Your task to perform on an android device: turn off improve location accuracy Image 0: 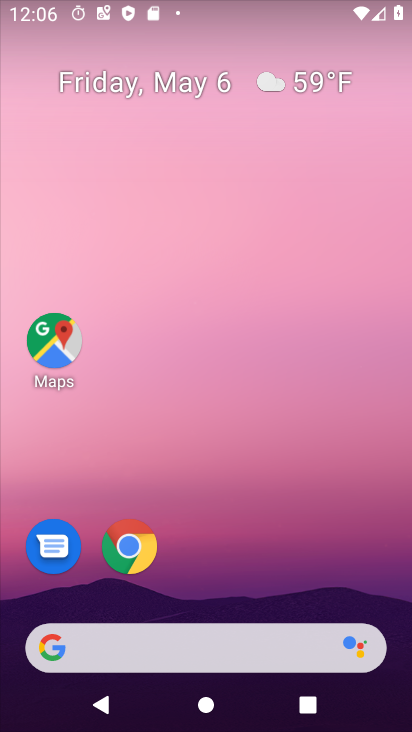
Step 0: drag from (226, 566) to (274, 196)
Your task to perform on an android device: turn off improve location accuracy Image 1: 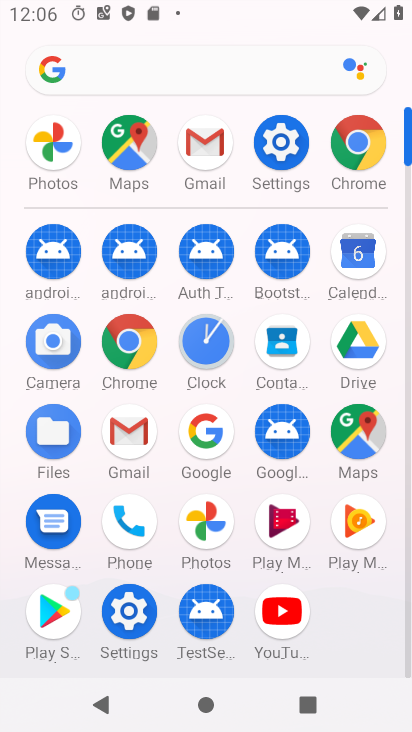
Step 1: click (128, 148)
Your task to perform on an android device: turn off improve location accuracy Image 2: 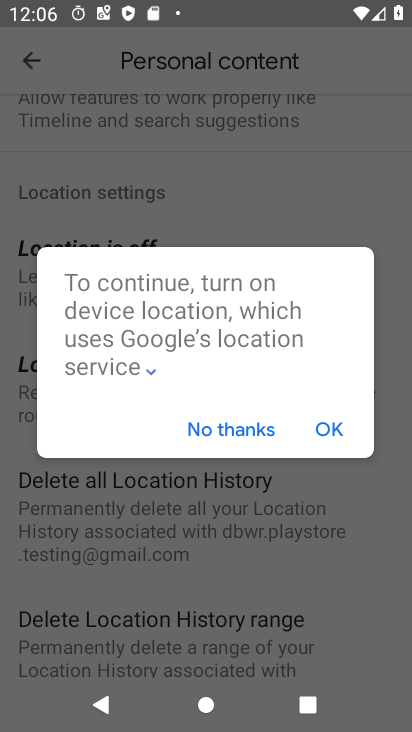
Step 2: click (235, 430)
Your task to perform on an android device: turn off improve location accuracy Image 3: 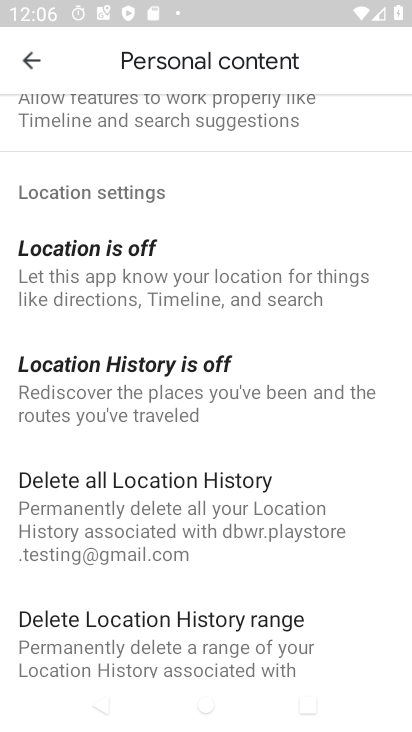
Step 3: drag from (214, 259) to (187, 544)
Your task to perform on an android device: turn off improve location accuracy Image 4: 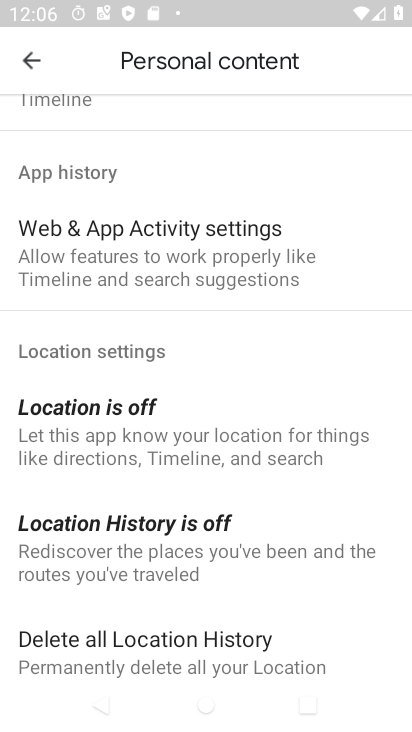
Step 4: click (33, 56)
Your task to perform on an android device: turn off improve location accuracy Image 5: 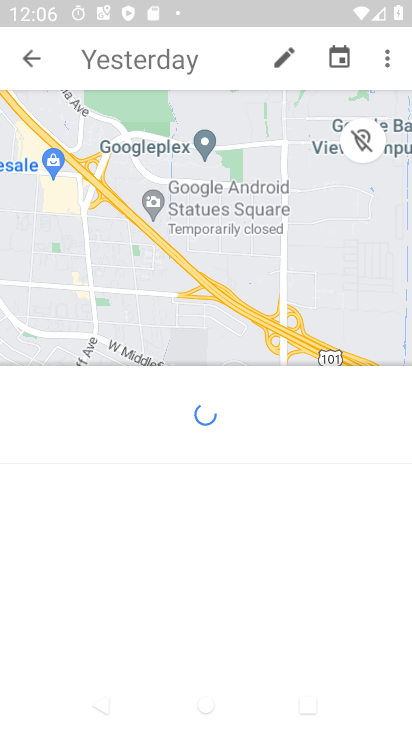
Step 5: click (32, 55)
Your task to perform on an android device: turn off improve location accuracy Image 6: 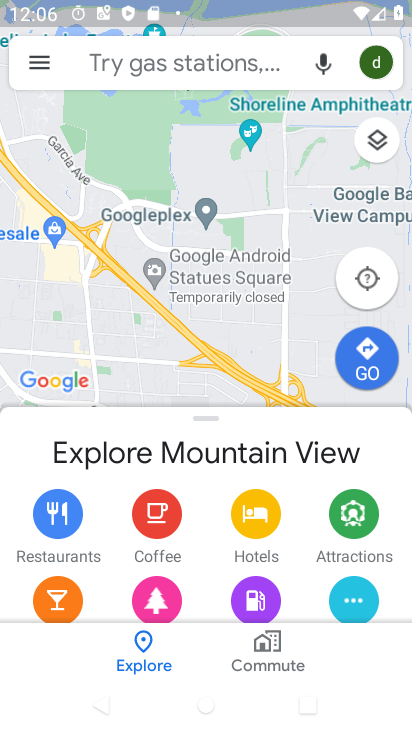
Step 6: press home button
Your task to perform on an android device: turn off improve location accuracy Image 7: 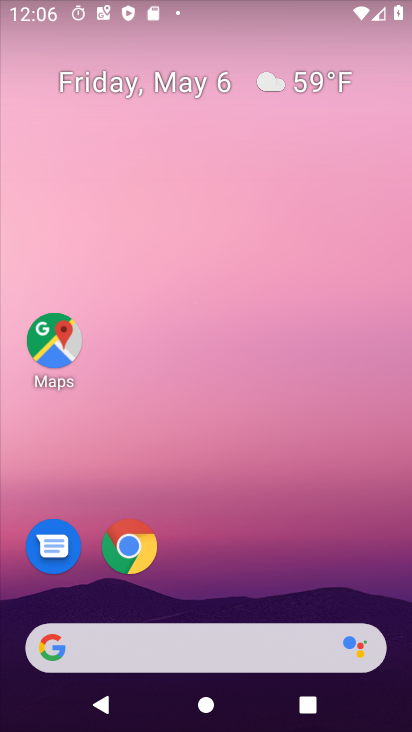
Step 7: drag from (248, 566) to (292, 57)
Your task to perform on an android device: turn off improve location accuracy Image 8: 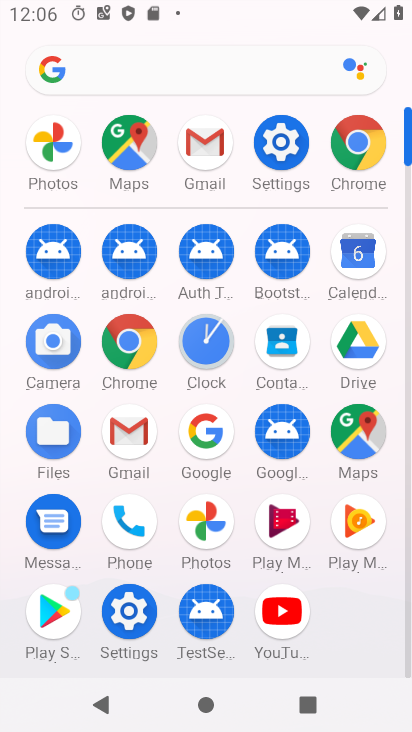
Step 8: click (282, 130)
Your task to perform on an android device: turn off improve location accuracy Image 9: 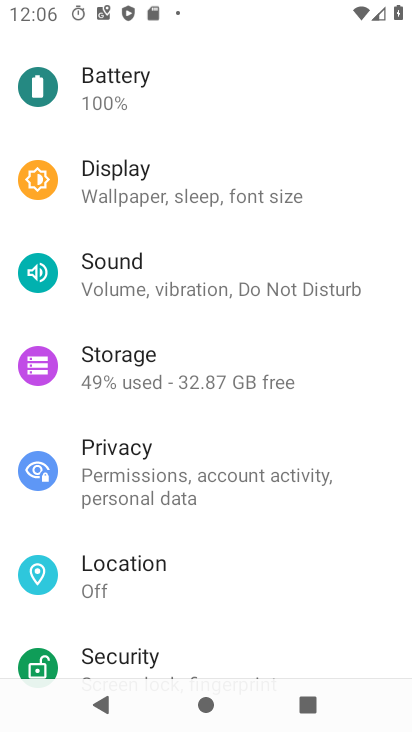
Step 9: click (198, 590)
Your task to perform on an android device: turn off improve location accuracy Image 10: 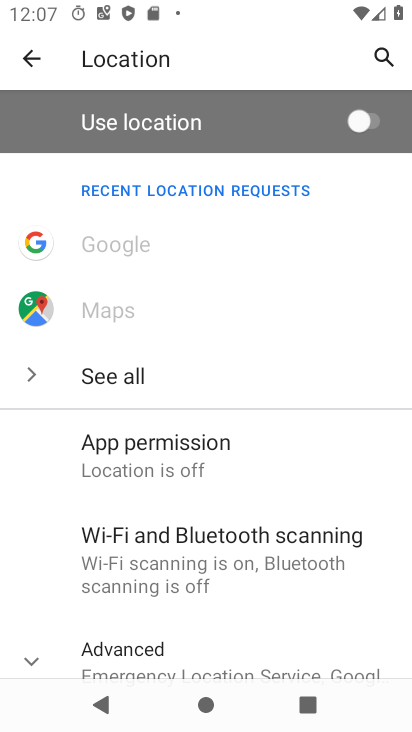
Step 10: drag from (320, 564) to (325, 380)
Your task to perform on an android device: turn off improve location accuracy Image 11: 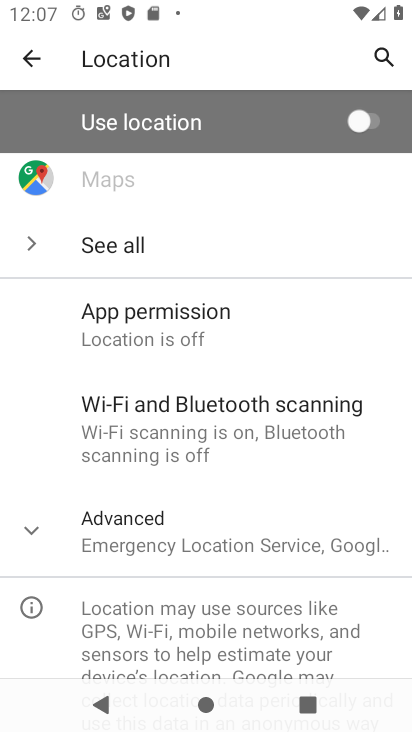
Step 11: click (226, 519)
Your task to perform on an android device: turn off improve location accuracy Image 12: 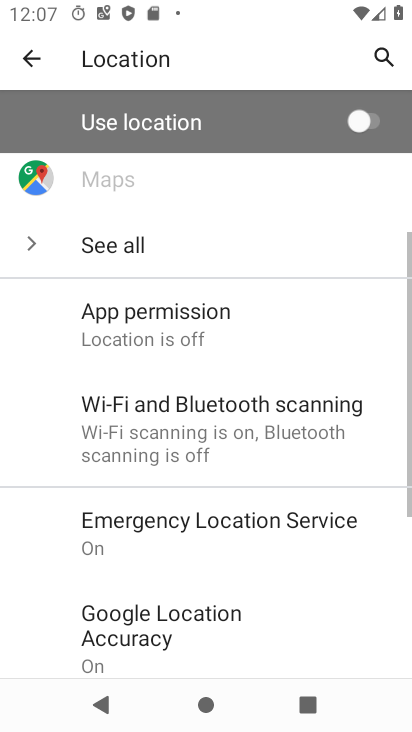
Step 12: drag from (276, 583) to (282, 315)
Your task to perform on an android device: turn off improve location accuracy Image 13: 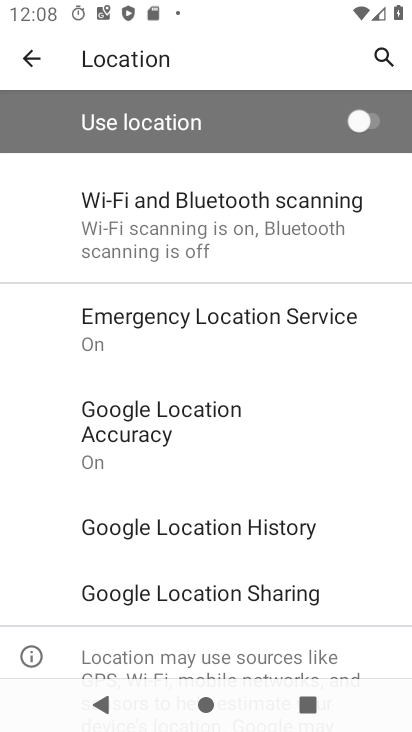
Step 13: click (208, 424)
Your task to perform on an android device: turn off improve location accuracy Image 14: 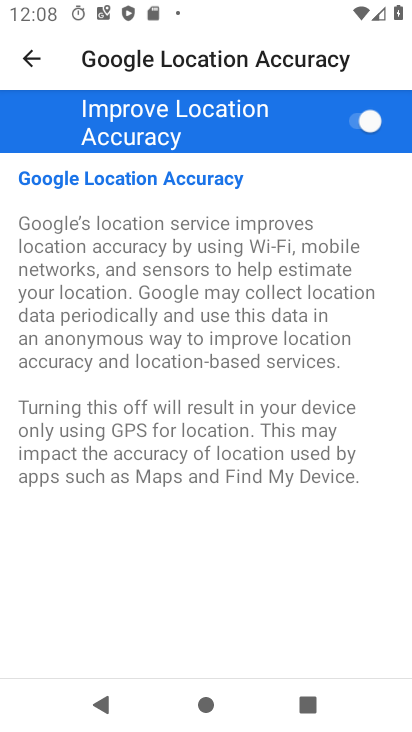
Step 14: click (354, 123)
Your task to perform on an android device: turn off improve location accuracy Image 15: 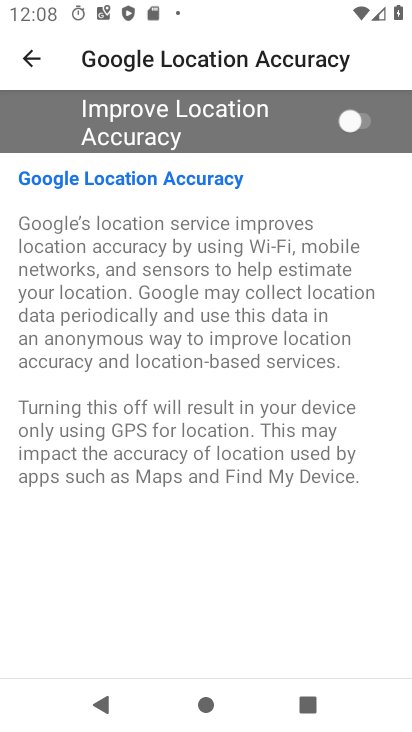
Step 15: task complete